Your task to perform on an android device: Open Yahoo.com Image 0: 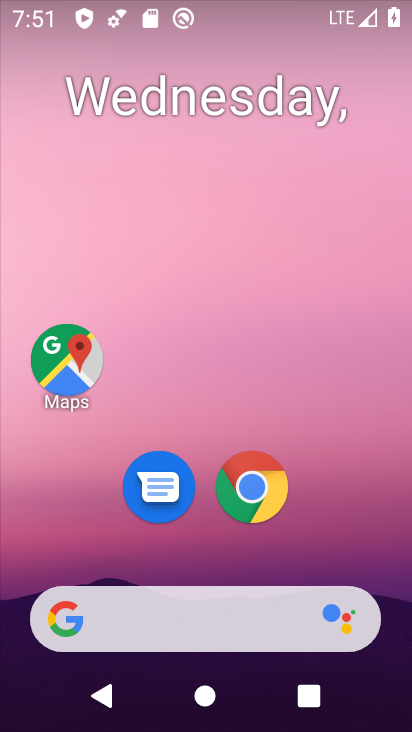
Step 0: click (250, 486)
Your task to perform on an android device: Open Yahoo.com Image 1: 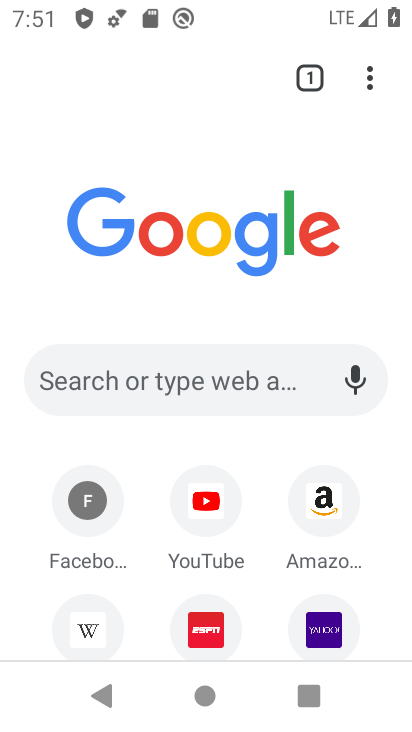
Step 1: drag from (11, 490) to (198, 184)
Your task to perform on an android device: Open Yahoo.com Image 2: 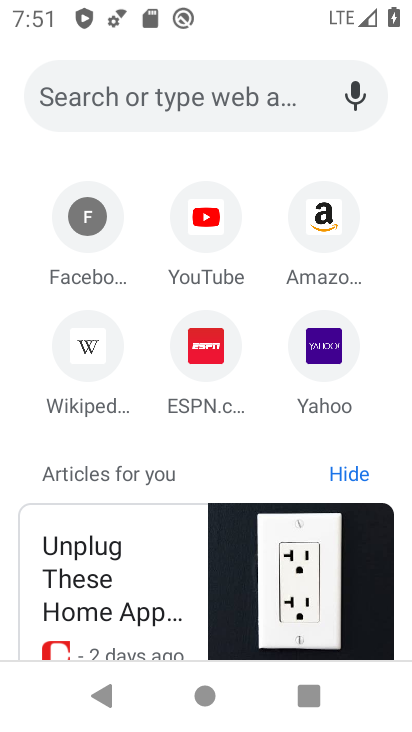
Step 2: click (310, 363)
Your task to perform on an android device: Open Yahoo.com Image 3: 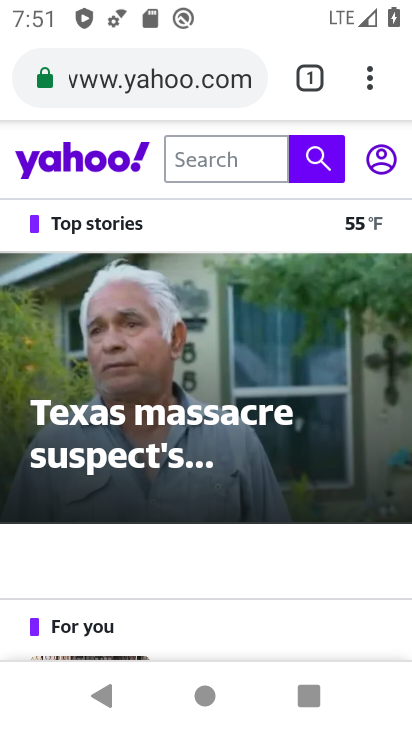
Step 3: task complete